Your task to perform on an android device: Open the calendar and show me this week's events Image 0: 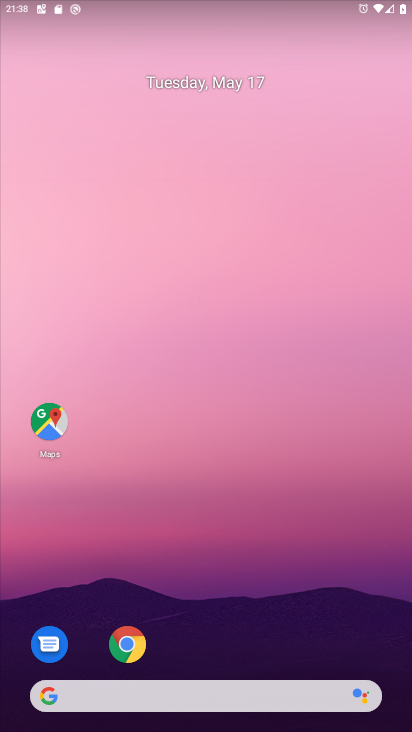
Step 0: drag from (212, 630) to (242, 10)
Your task to perform on an android device: Open the calendar and show me this week's events Image 1: 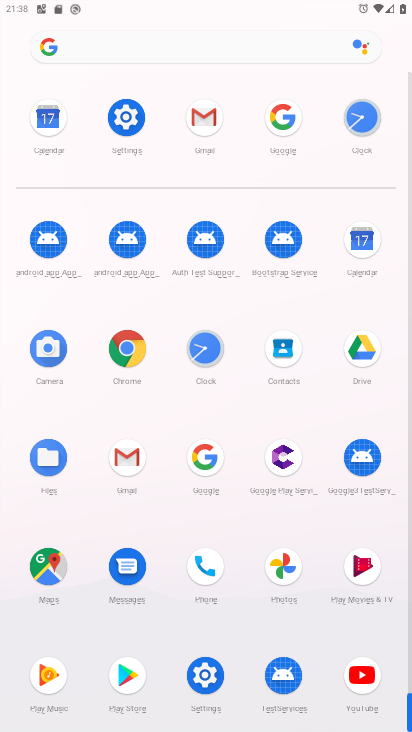
Step 1: click (363, 229)
Your task to perform on an android device: Open the calendar and show me this week's events Image 2: 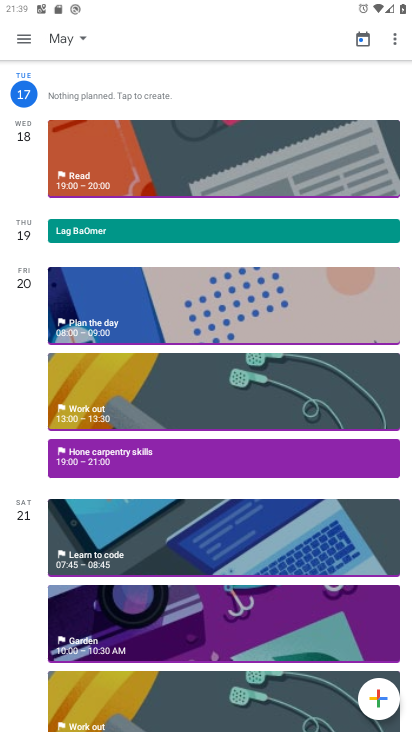
Step 2: click (20, 37)
Your task to perform on an android device: Open the calendar and show me this week's events Image 3: 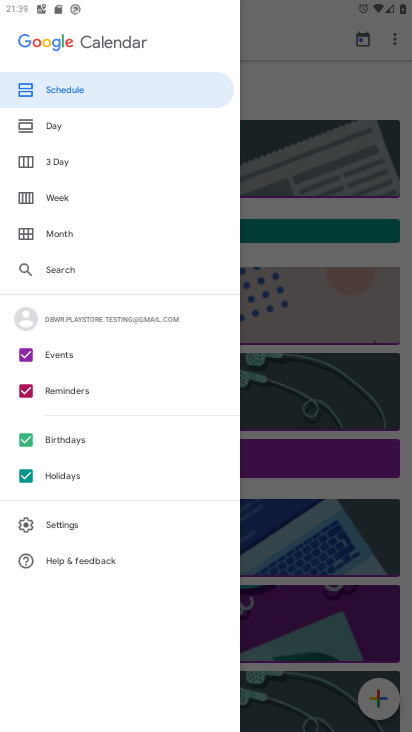
Step 3: click (22, 477)
Your task to perform on an android device: Open the calendar and show me this week's events Image 4: 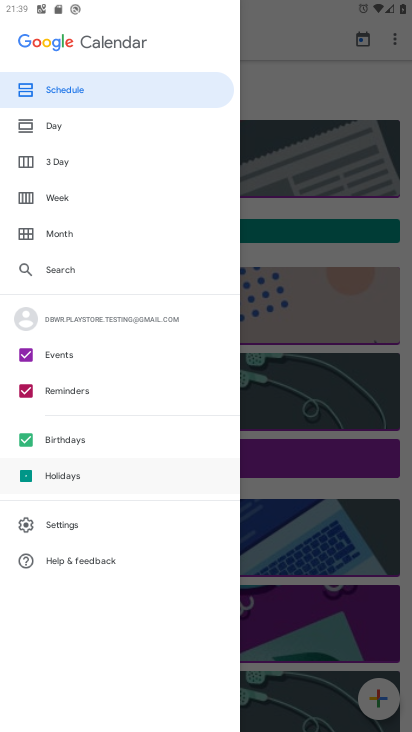
Step 4: click (25, 440)
Your task to perform on an android device: Open the calendar and show me this week's events Image 5: 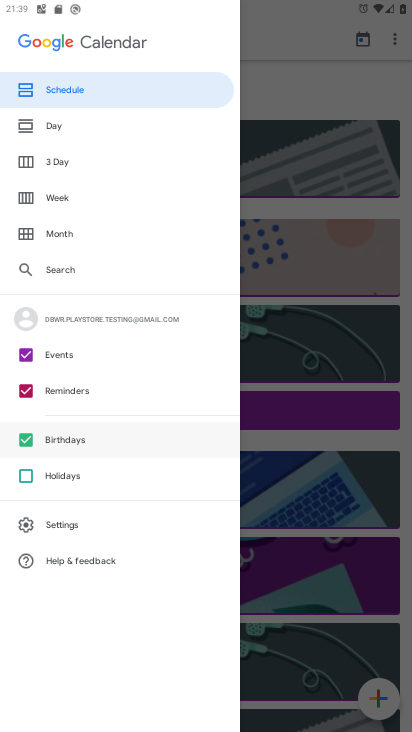
Step 5: click (27, 381)
Your task to perform on an android device: Open the calendar and show me this week's events Image 6: 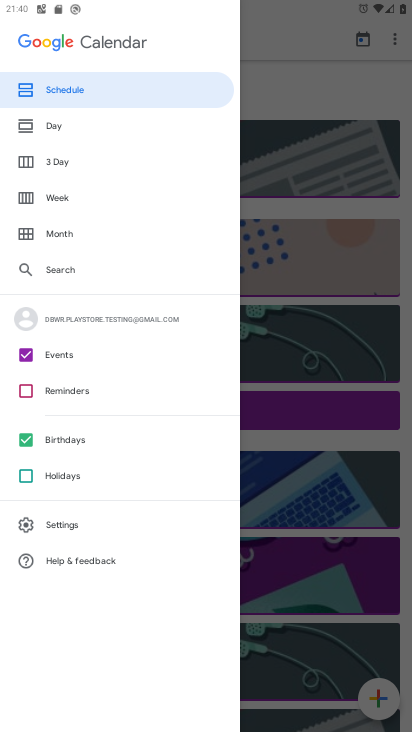
Step 6: click (30, 439)
Your task to perform on an android device: Open the calendar and show me this week's events Image 7: 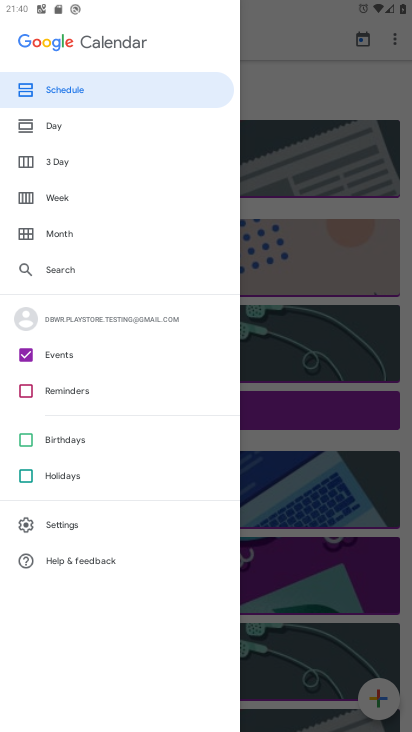
Step 7: click (35, 201)
Your task to perform on an android device: Open the calendar and show me this week's events Image 8: 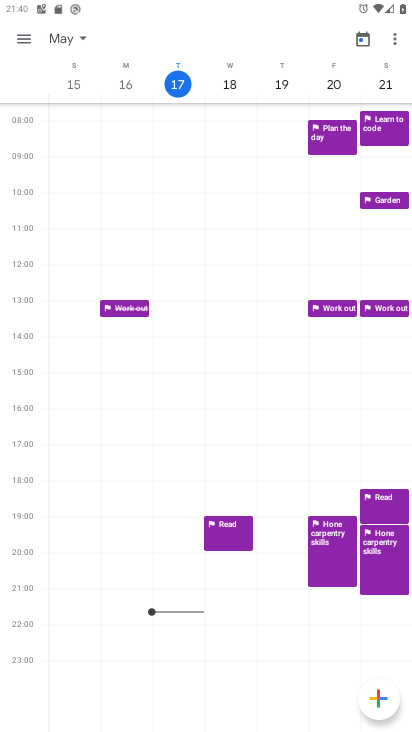
Step 8: click (172, 80)
Your task to perform on an android device: Open the calendar and show me this week's events Image 9: 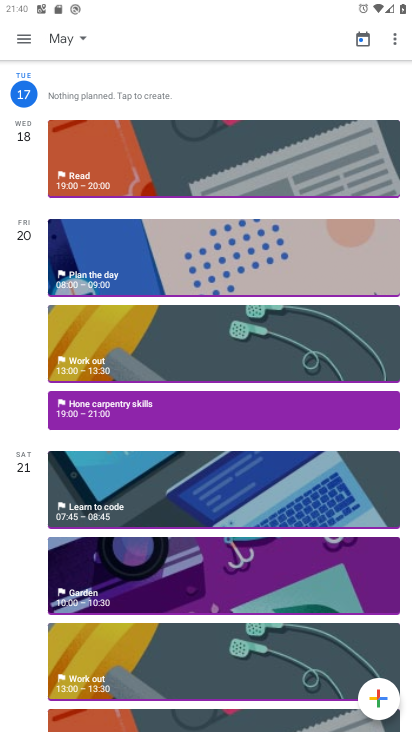
Step 9: task complete